Your task to perform on an android device: manage bookmarks in the chrome app Image 0: 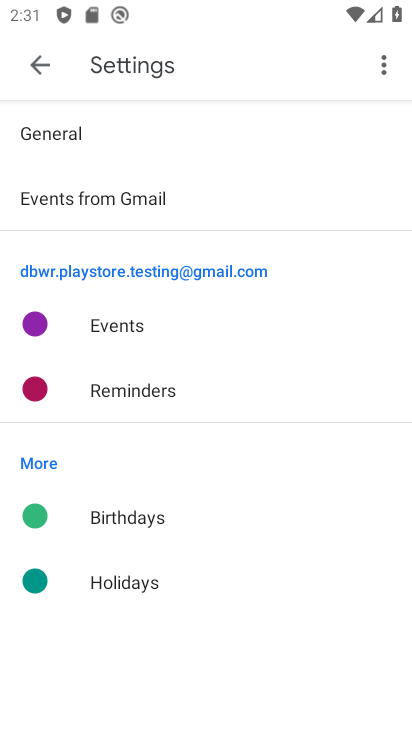
Step 0: press home button
Your task to perform on an android device: manage bookmarks in the chrome app Image 1: 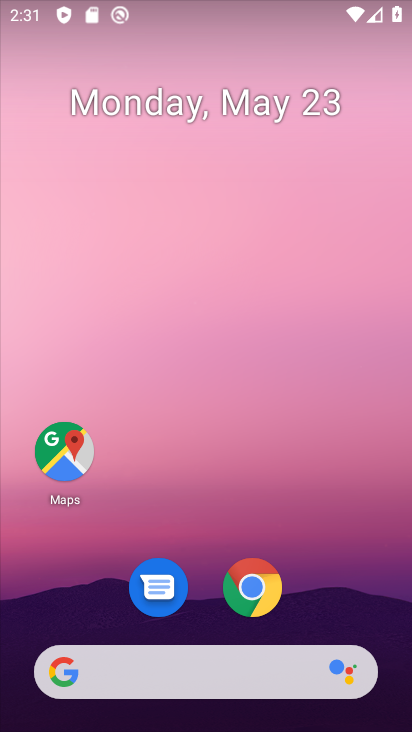
Step 1: click (260, 585)
Your task to perform on an android device: manage bookmarks in the chrome app Image 2: 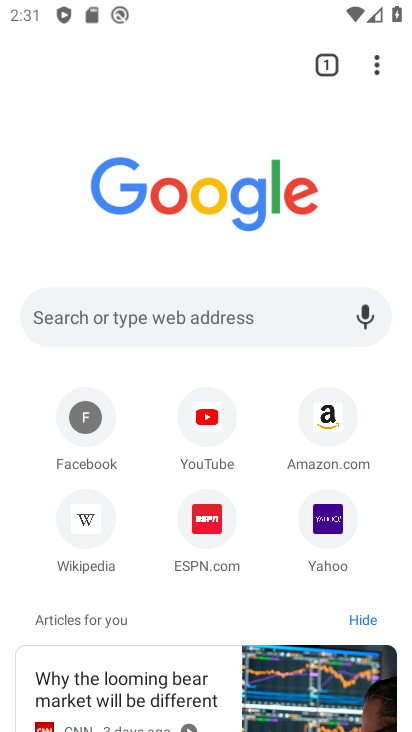
Step 2: click (377, 58)
Your task to perform on an android device: manage bookmarks in the chrome app Image 3: 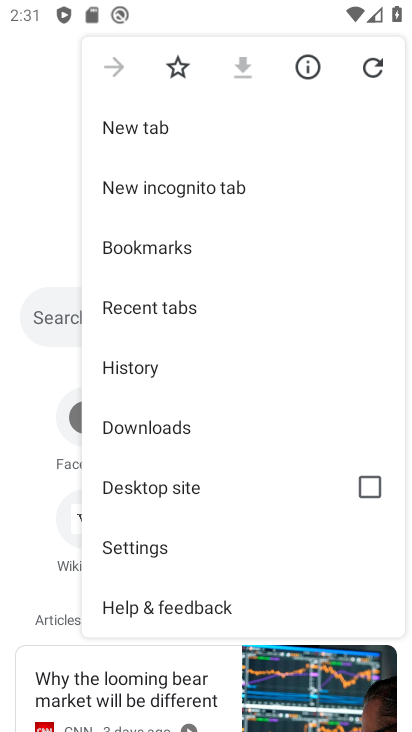
Step 3: click (164, 258)
Your task to perform on an android device: manage bookmarks in the chrome app Image 4: 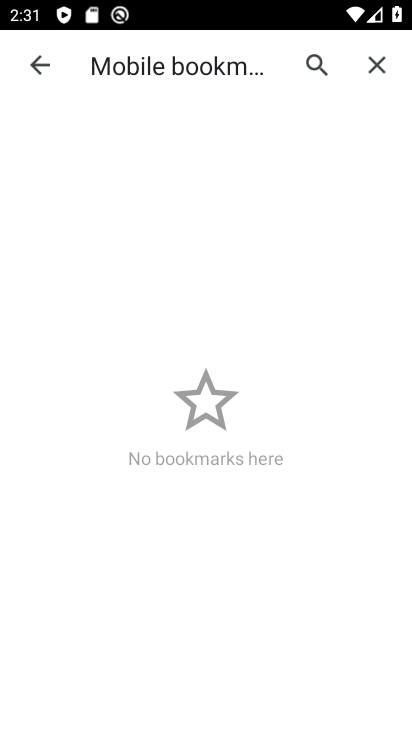
Step 4: task complete